Your task to perform on an android device: Open the stopwatch Image 0: 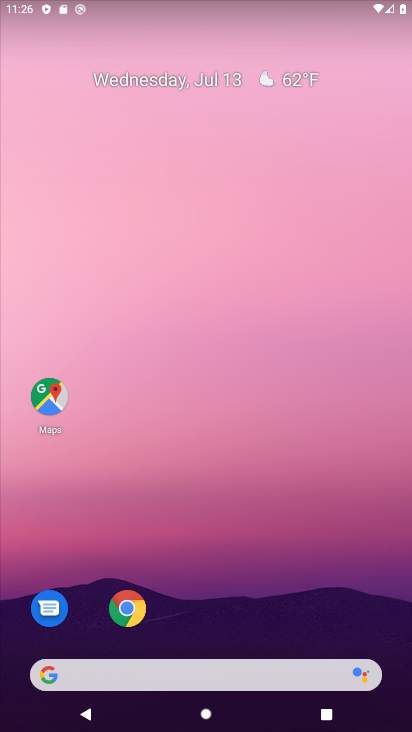
Step 0: drag from (226, 722) to (214, 133)
Your task to perform on an android device: Open the stopwatch Image 1: 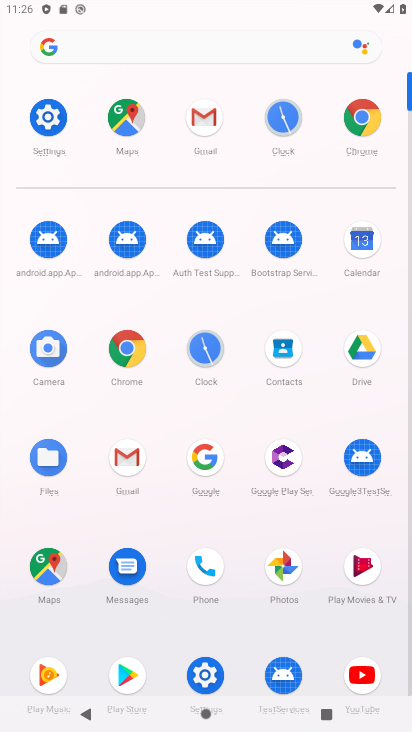
Step 1: click (209, 353)
Your task to perform on an android device: Open the stopwatch Image 2: 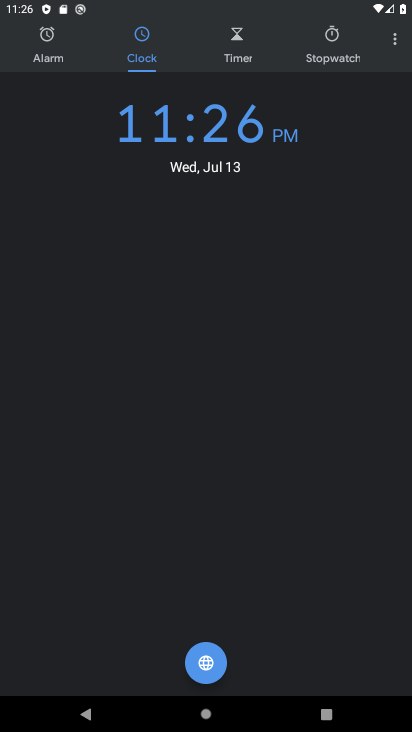
Step 2: click (315, 45)
Your task to perform on an android device: Open the stopwatch Image 3: 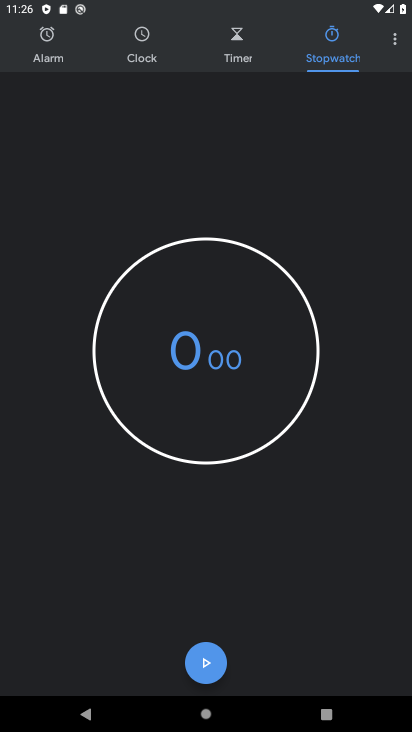
Step 3: task complete